Your task to perform on an android device: turn off airplane mode Image 0: 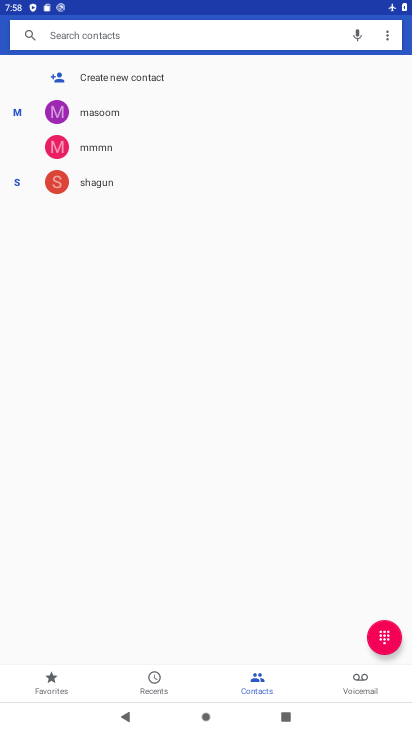
Step 0: press home button
Your task to perform on an android device: turn off airplane mode Image 1: 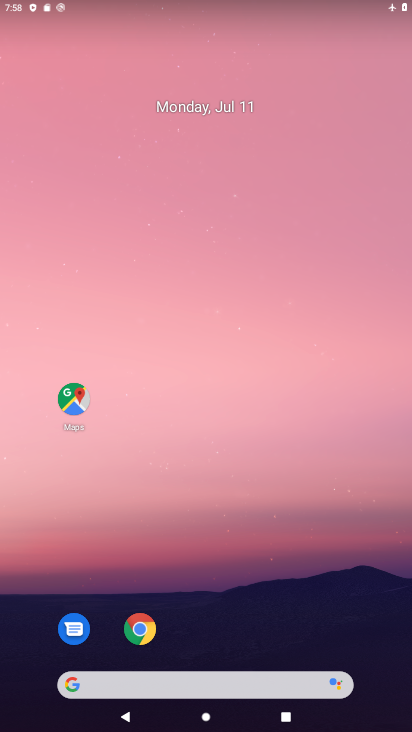
Step 1: drag from (171, 651) to (144, 228)
Your task to perform on an android device: turn off airplane mode Image 2: 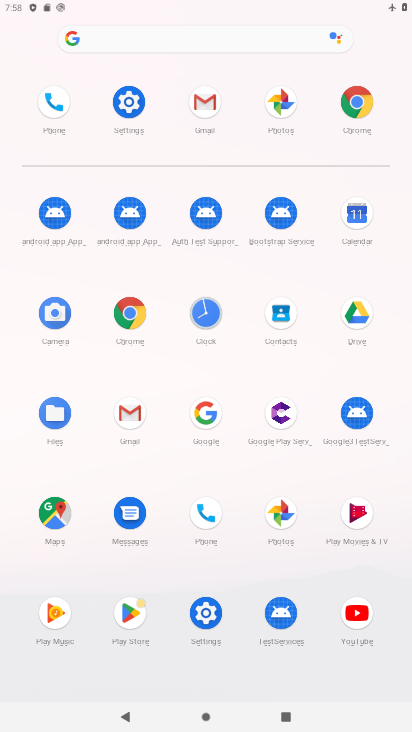
Step 2: click (124, 111)
Your task to perform on an android device: turn off airplane mode Image 3: 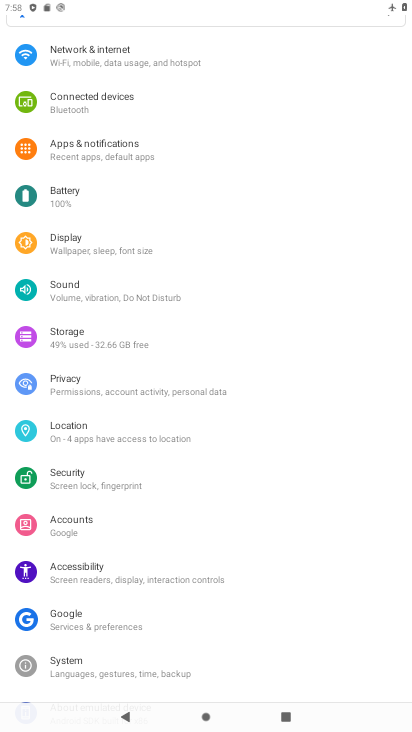
Step 3: click (123, 63)
Your task to perform on an android device: turn off airplane mode Image 4: 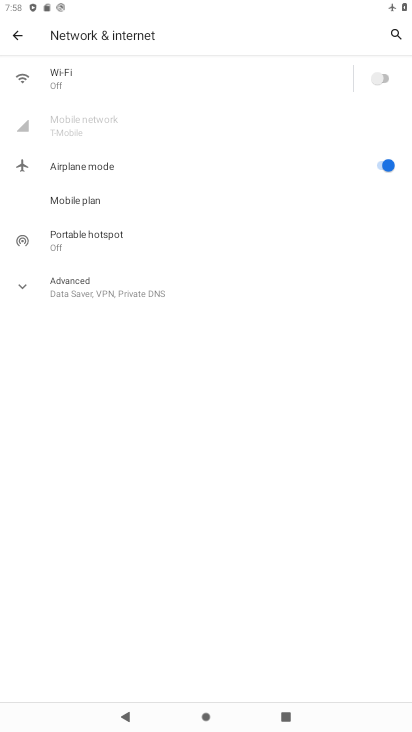
Step 4: click (388, 169)
Your task to perform on an android device: turn off airplane mode Image 5: 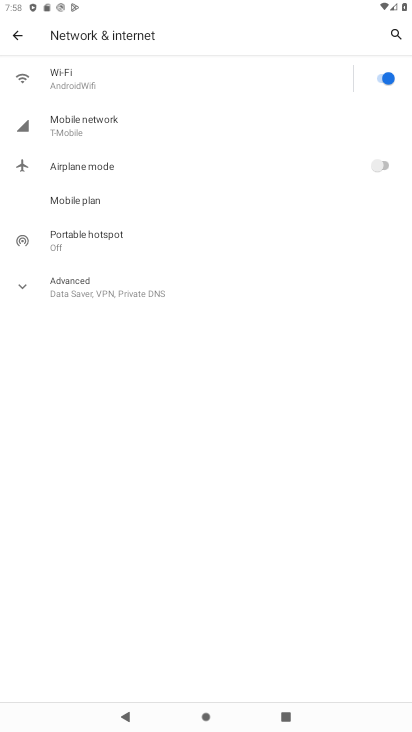
Step 5: task complete